Your task to perform on an android device: Show the shopping cart on costco.com. Search for logitech g pro on costco.com, select the first entry, add it to the cart, then select checkout. Image 0: 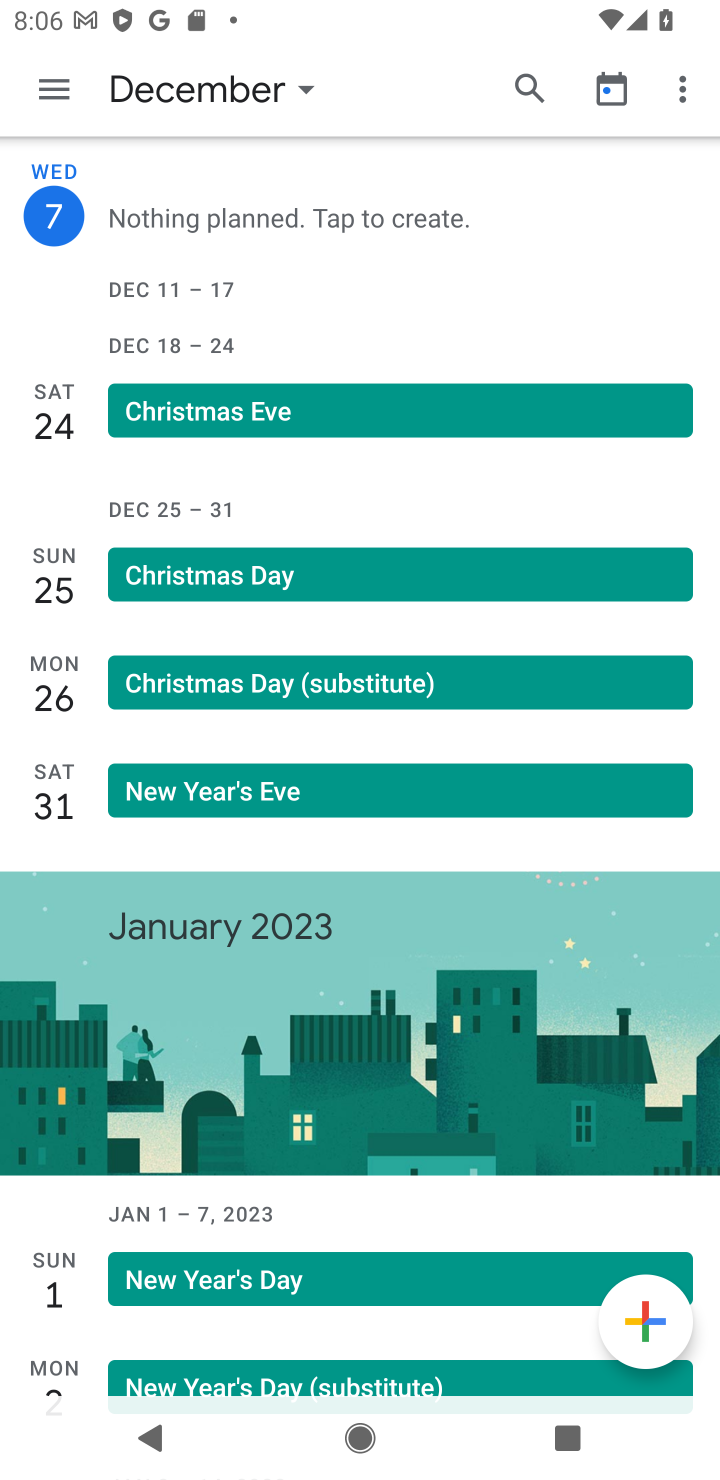
Step 0: press home button
Your task to perform on an android device: Show the shopping cart on costco.com. Search for logitech g pro on costco.com, select the first entry, add it to the cart, then select checkout. Image 1: 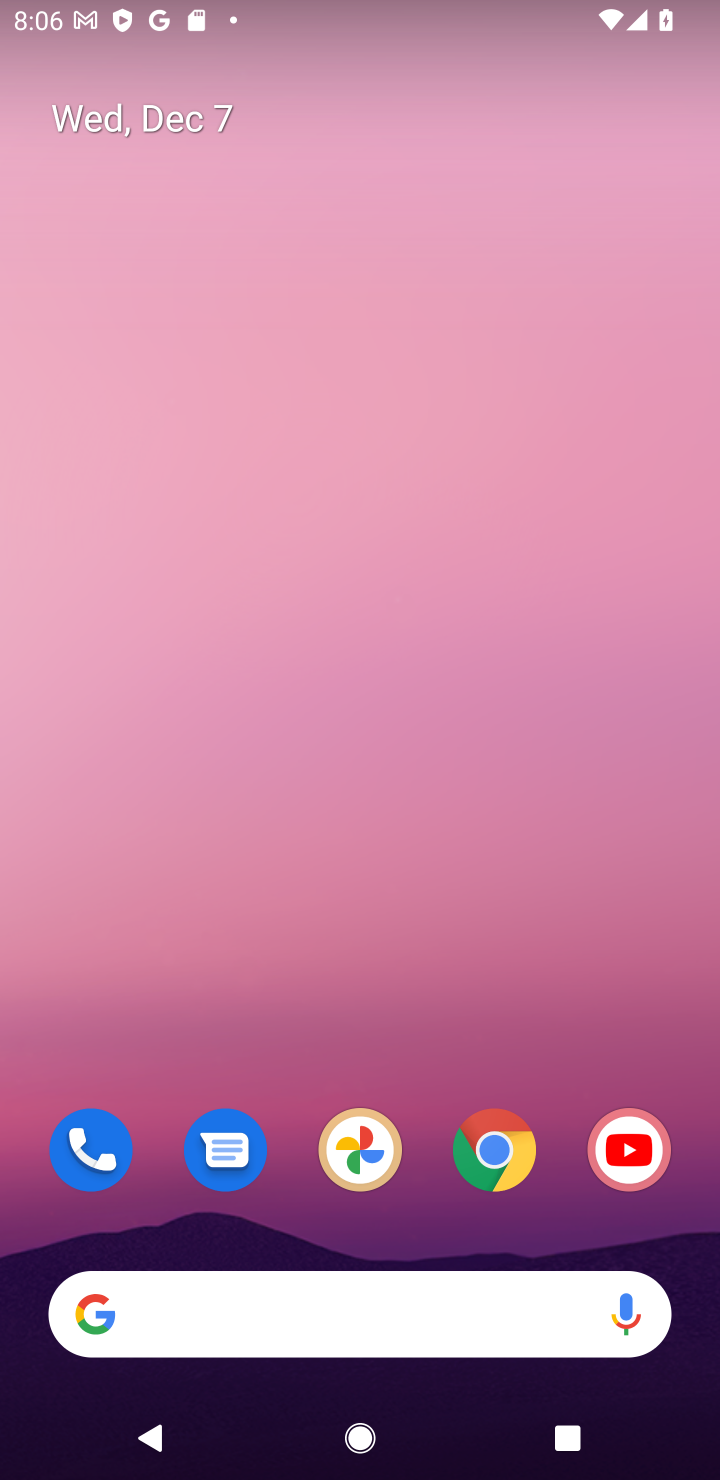
Step 1: click (504, 1138)
Your task to perform on an android device: Show the shopping cart on costco.com. Search for logitech g pro on costco.com, select the first entry, add it to the cart, then select checkout. Image 2: 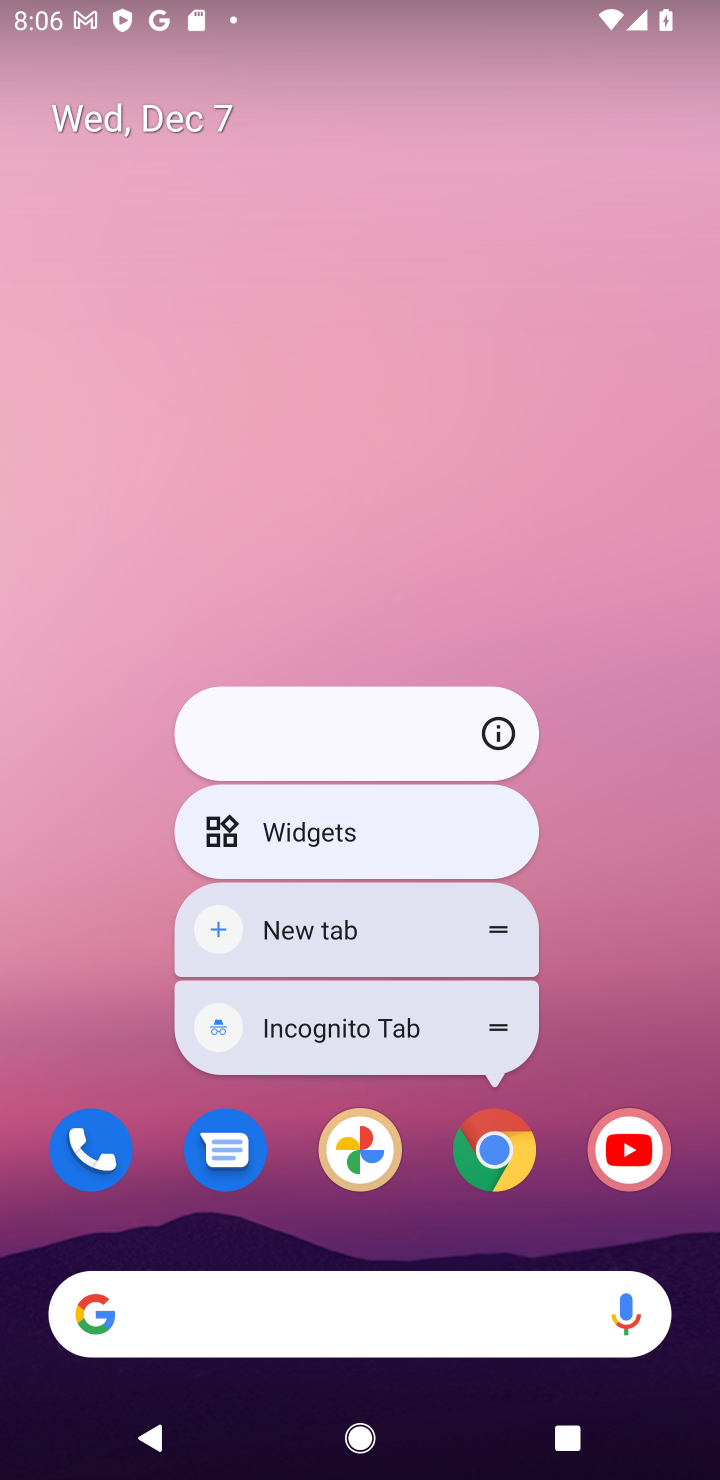
Step 2: click (504, 1138)
Your task to perform on an android device: Show the shopping cart on costco.com. Search for logitech g pro on costco.com, select the first entry, add it to the cart, then select checkout. Image 3: 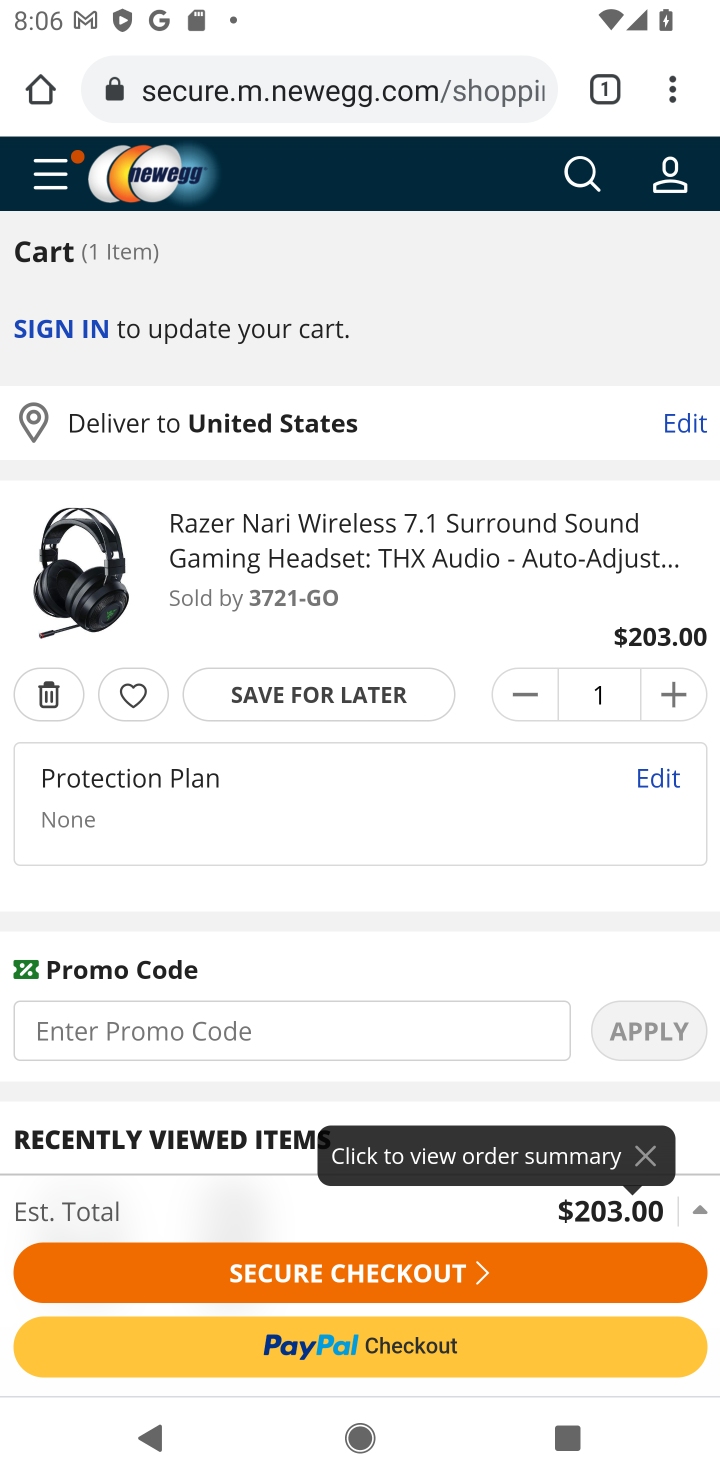
Step 3: click (295, 95)
Your task to perform on an android device: Show the shopping cart on costco.com. Search for logitech g pro on costco.com, select the first entry, add it to the cart, then select checkout. Image 4: 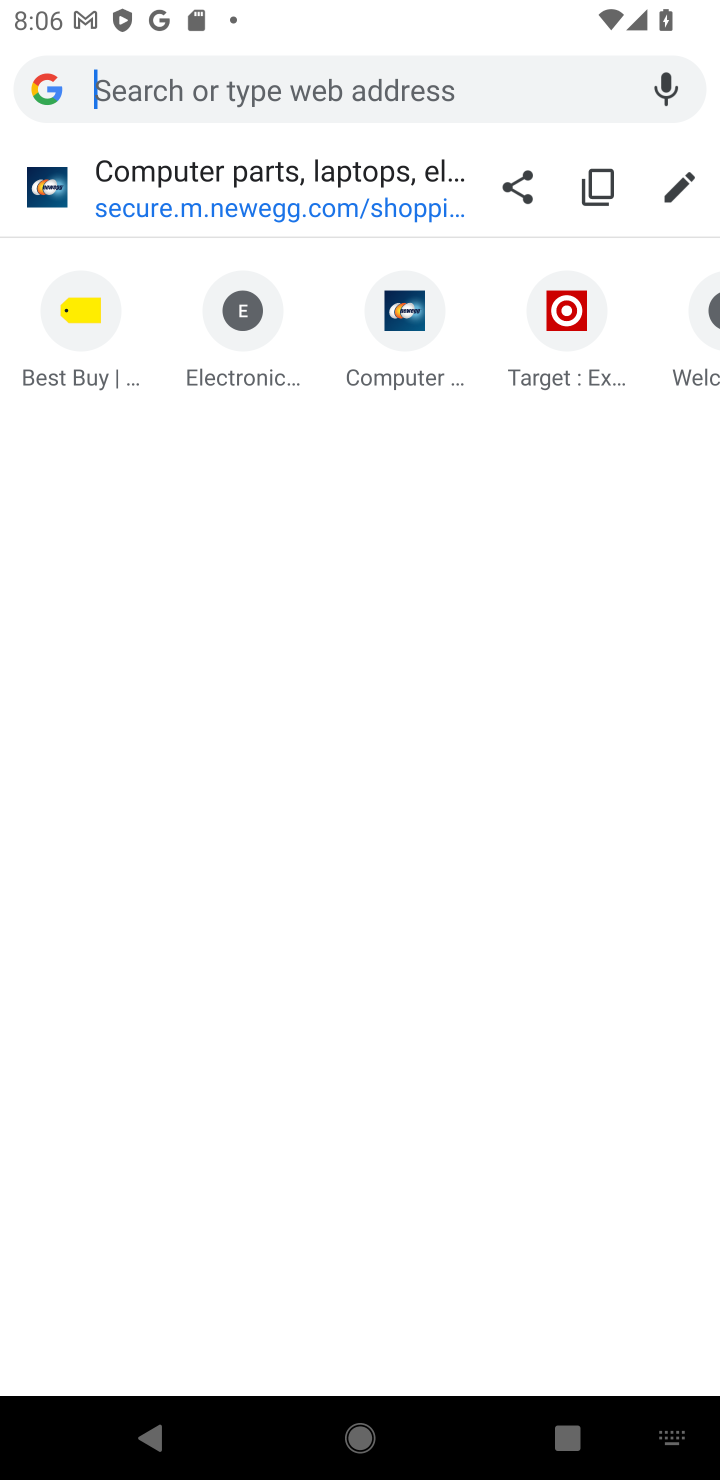
Step 4: type "costco.com"
Your task to perform on an android device: Show the shopping cart on costco.com. Search for logitech g pro on costco.com, select the first entry, add it to the cart, then select checkout. Image 5: 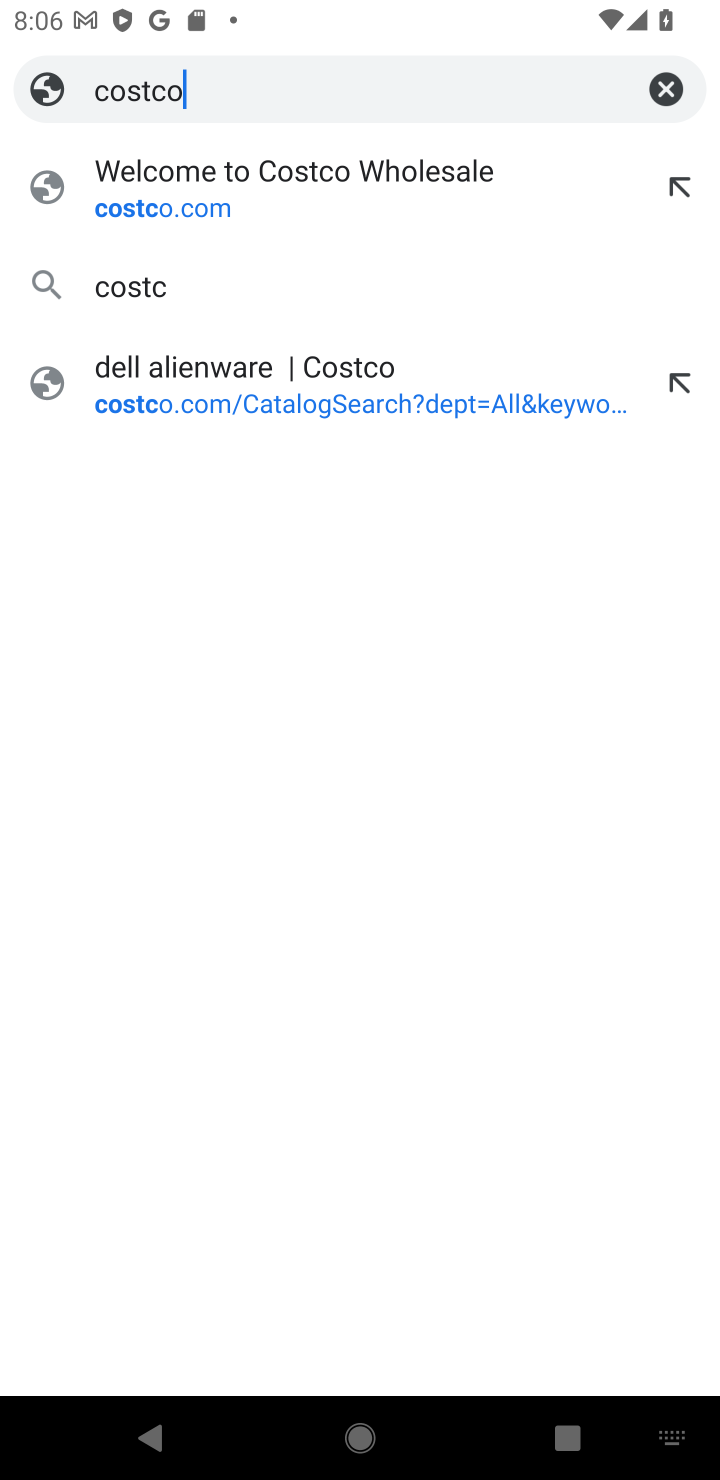
Step 5: press enter
Your task to perform on an android device: Show the shopping cart on costco.com. Search for logitech g pro on costco.com, select the first entry, add it to the cart, then select checkout. Image 6: 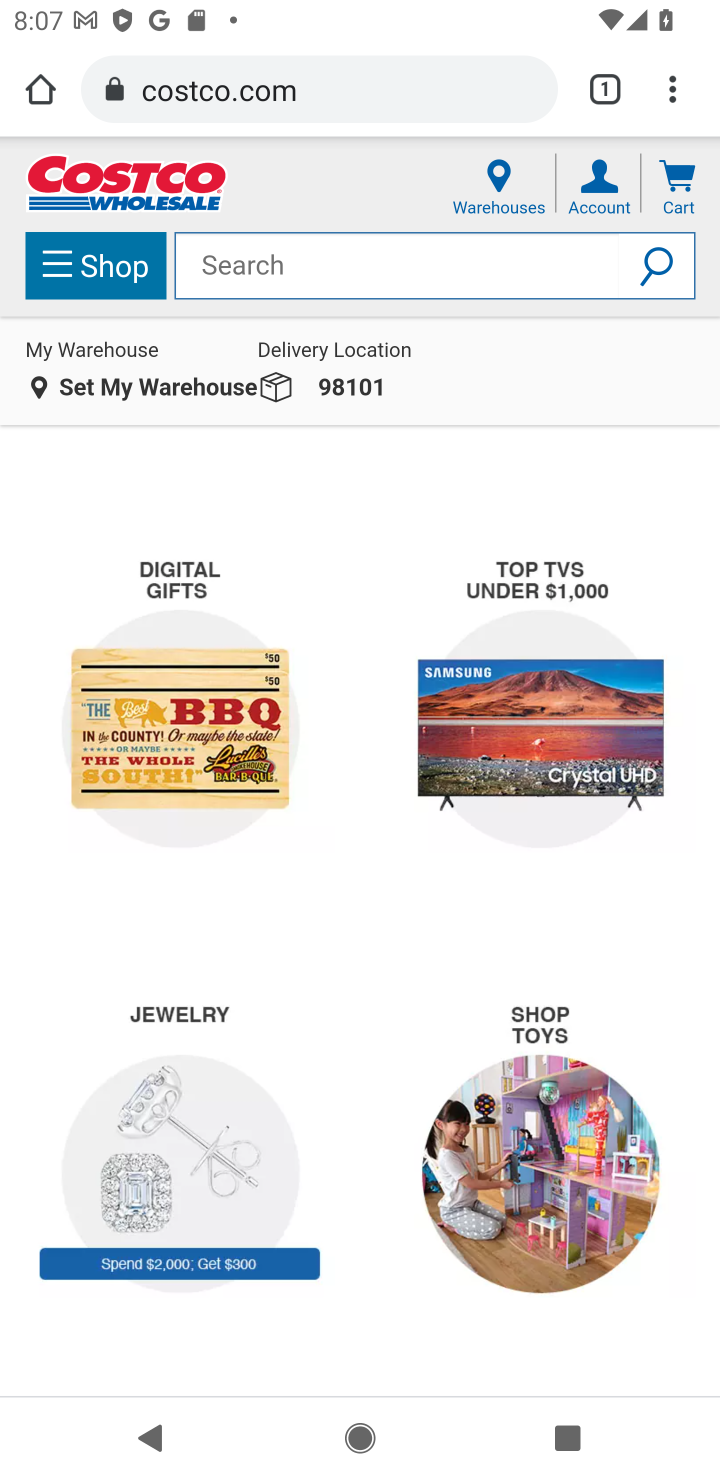
Step 6: click (688, 179)
Your task to perform on an android device: Show the shopping cart on costco.com. Search for logitech g pro on costco.com, select the first entry, add it to the cart, then select checkout. Image 7: 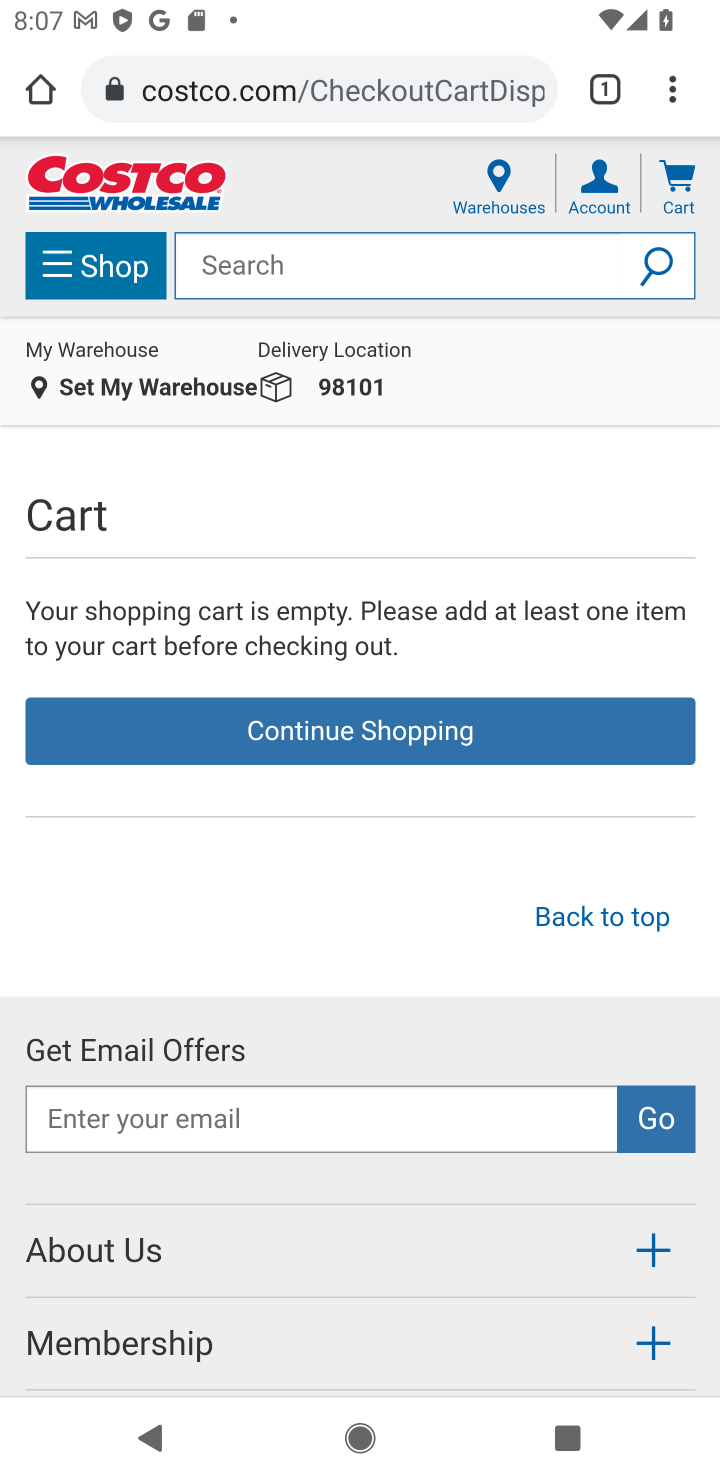
Step 7: click (300, 256)
Your task to perform on an android device: Show the shopping cart on costco.com. Search for logitech g pro on costco.com, select the first entry, add it to the cart, then select checkout. Image 8: 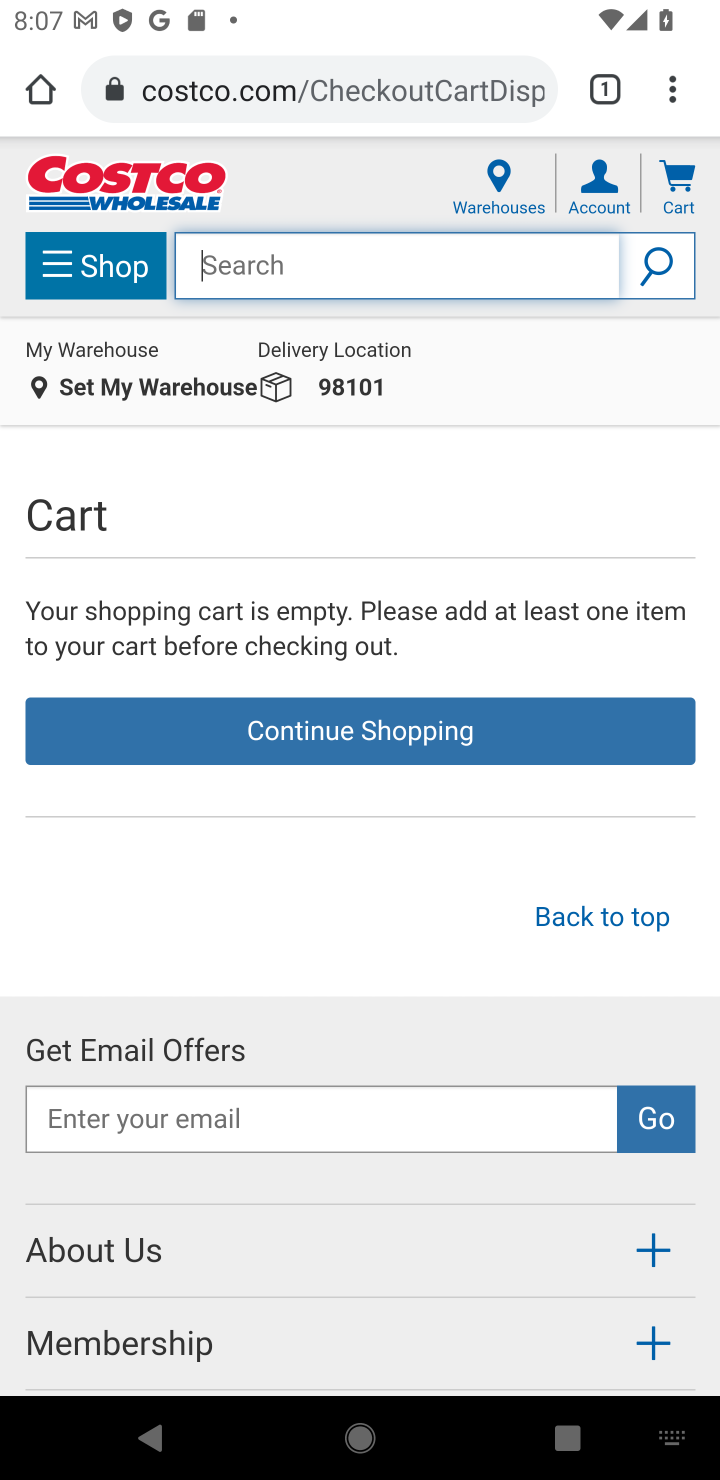
Step 8: type "logitech g pro"
Your task to perform on an android device: Show the shopping cart on costco.com. Search for logitech g pro on costco.com, select the first entry, add it to the cart, then select checkout. Image 9: 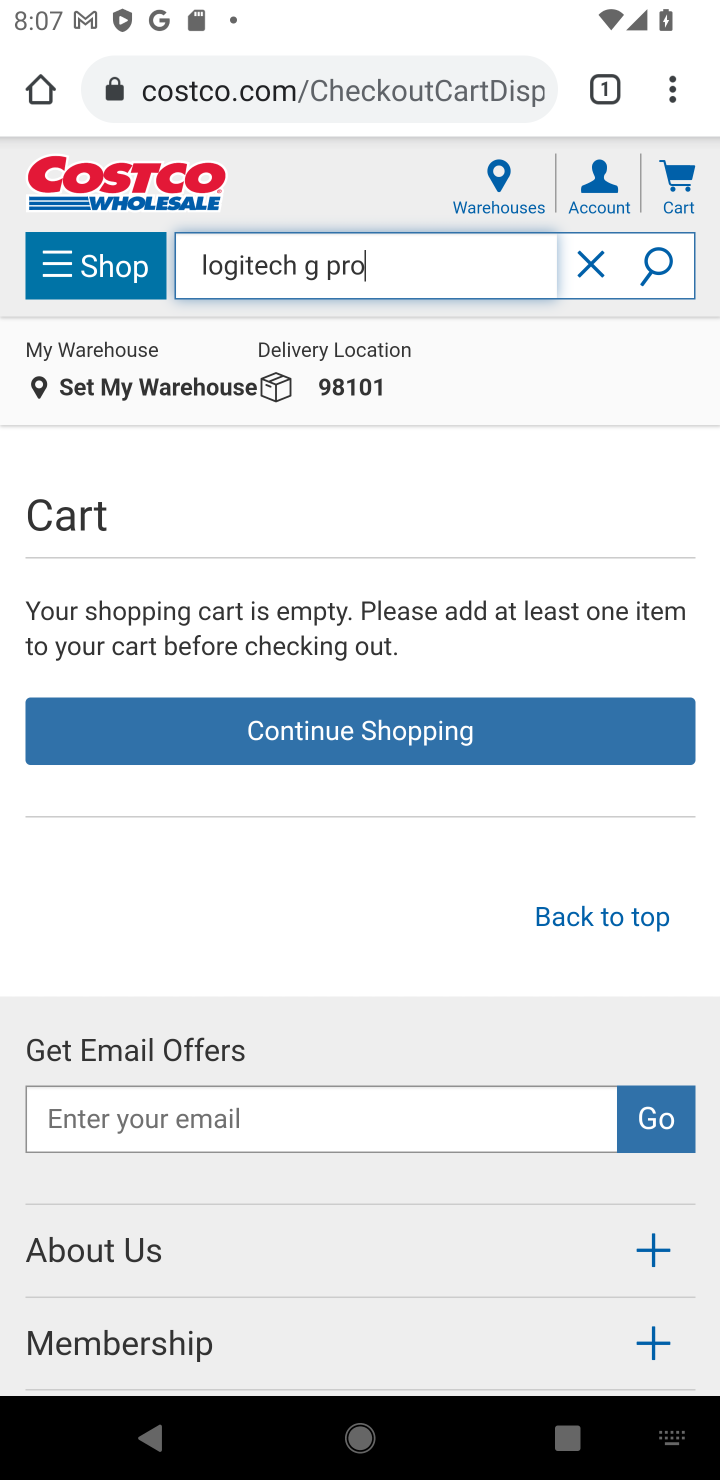
Step 9: press enter
Your task to perform on an android device: Show the shopping cart on costco.com. Search for logitech g pro on costco.com, select the first entry, add it to the cart, then select checkout. Image 10: 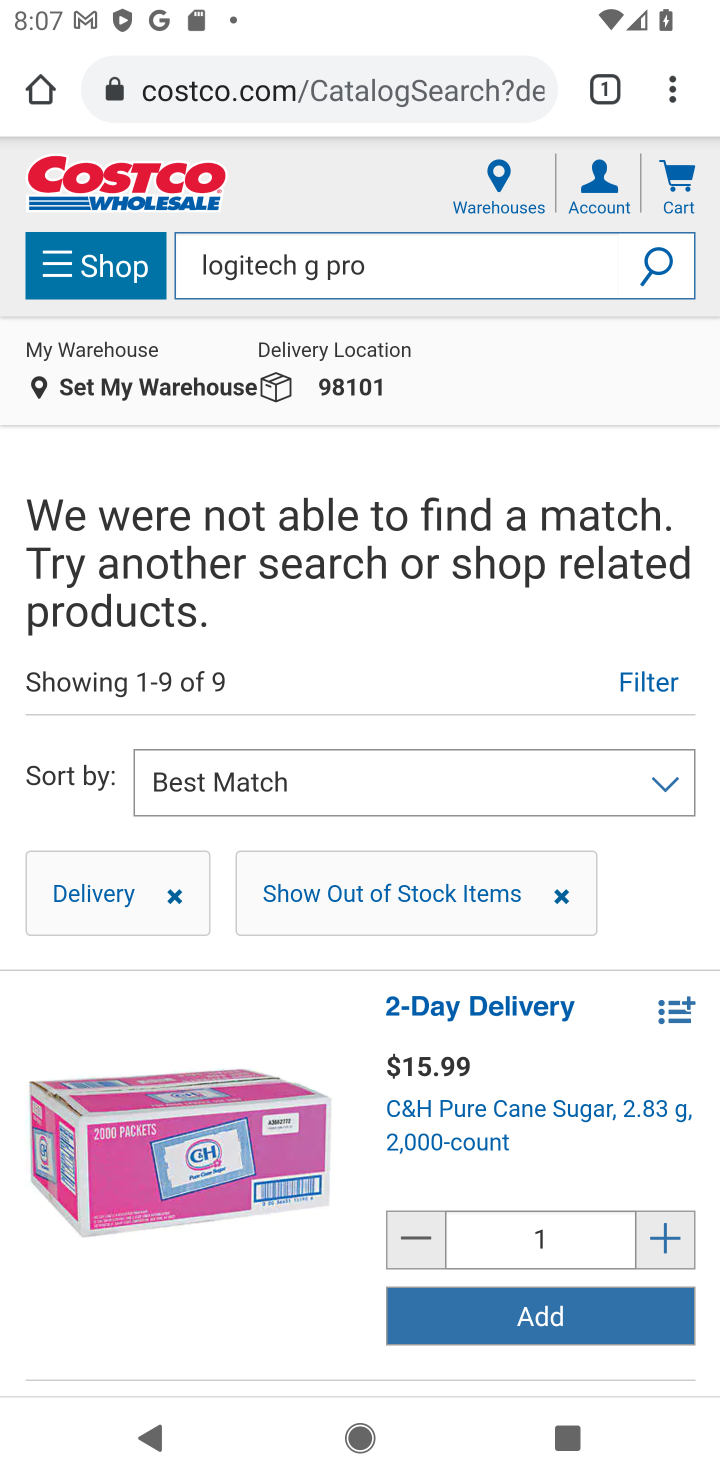
Step 10: task complete